Your task to perform on an android device: Open eBay Image 0: 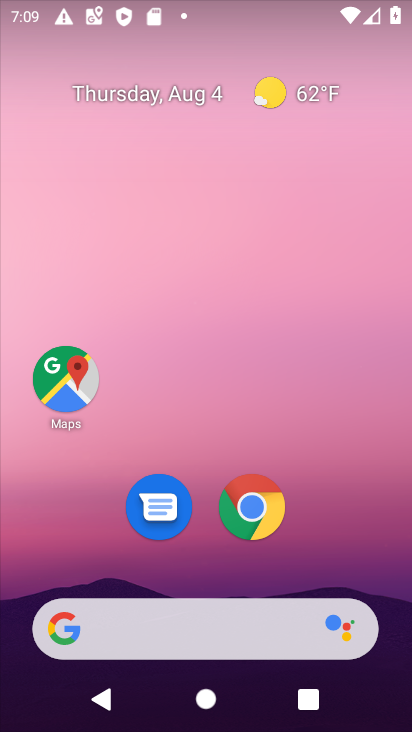
Step 0: drag from (385, 560) to (251, 20)
Your task to perform on an android device: Open eBay Image 1: 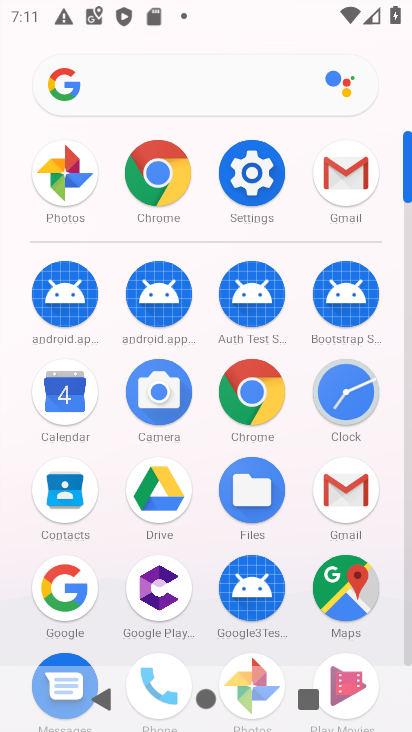
Step 1: click (57, 581)
Your task to perform on an android device: Open eBay Image 2: 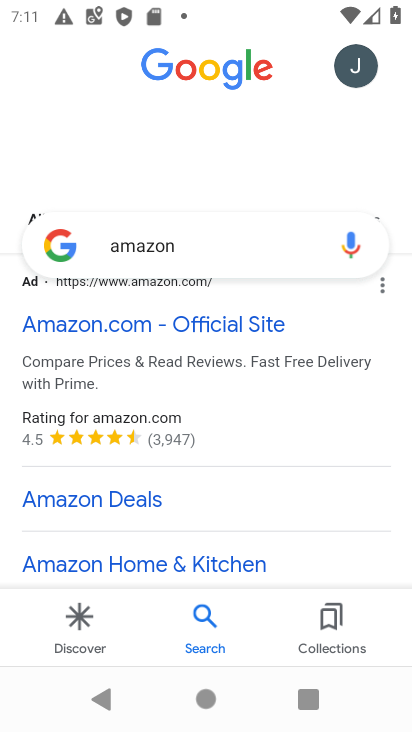
Step 2: press back button
Your task to perform on an android device: Open eBay Image 3: 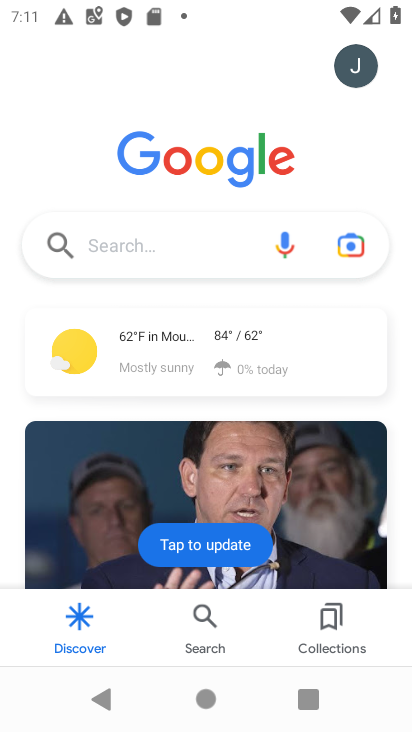
Step 3: click (150, 259)
Your task to perform on an android device: Open eBay Image 4: 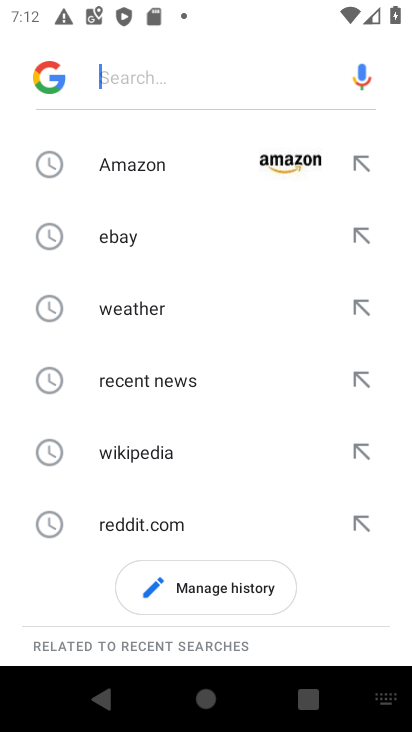
Step 4: click (129, 233)
Your task to perform on an android device: Open eBay Image 5: 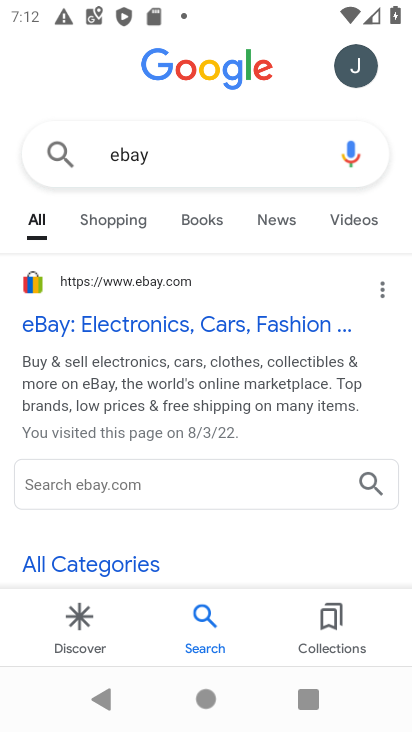
Step 5: task complete